Your task to perform on an android device: Go to ESPN.com Image 0: 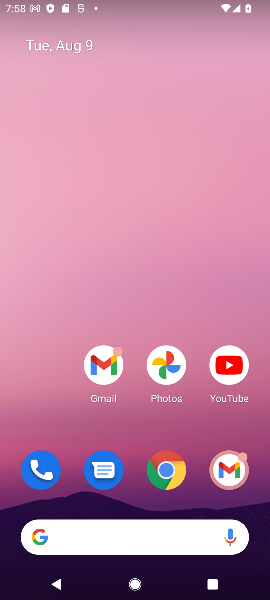
Step 0: click (103, 378)
Your task to perform on an android device: Go to ESPN.com Image 1: 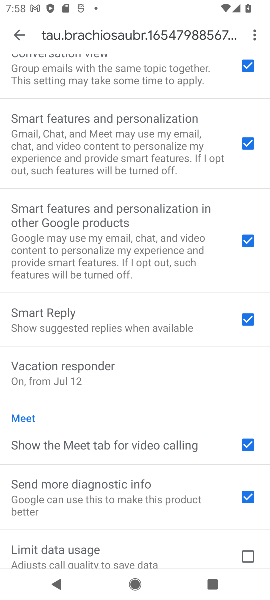
Step 1: press home button
Your task to perform on an android device: Go to ESPN.com Image 2: 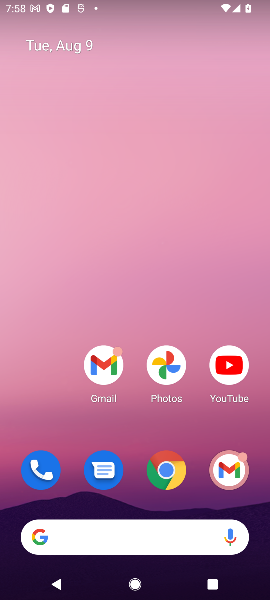
Step 2: click (169, 476)
Your task to perform on an android device: Go to ESPN.com Image 3: 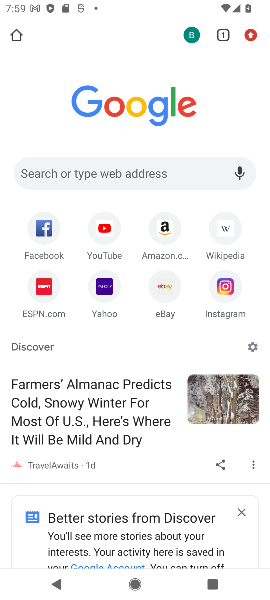
Step 3: click (45, 303)
Your task to perform on an android device: Go to ESPN.com Image 4: 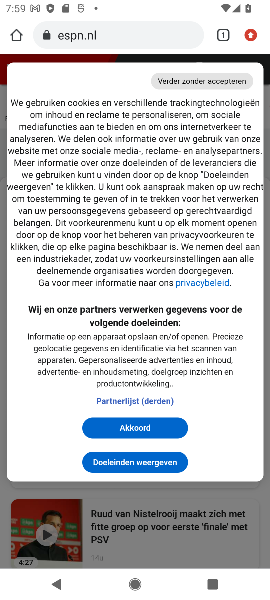
Step 4: task complete